Your task to perform on an android device: toggle notification dots Image 0: 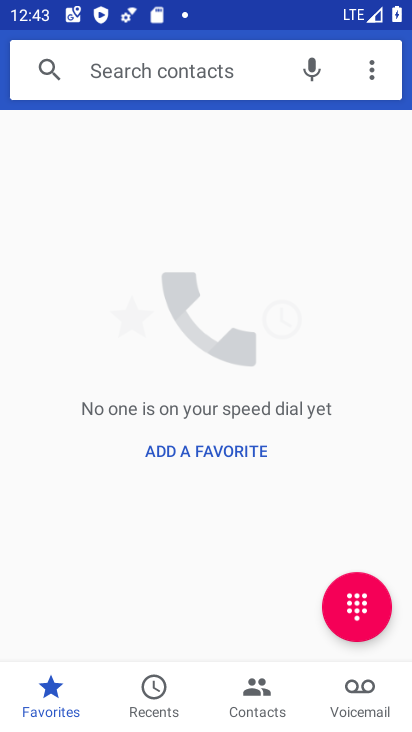
Step 0: press home button
Your task to perform on an android device: toggle notification dots Image 1: 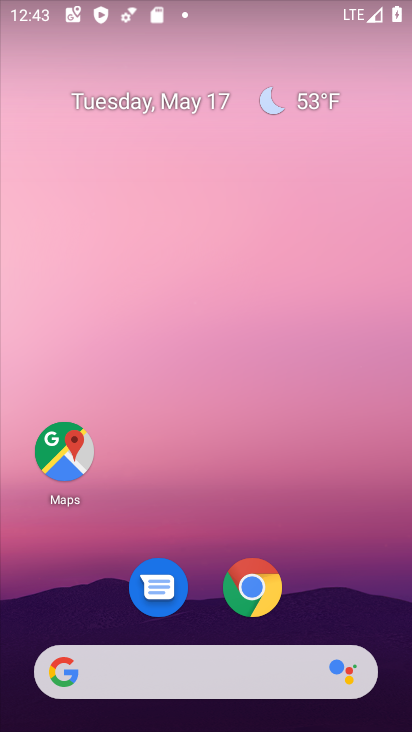
Step 1: drag from (232, 636) to (304, 7)
Your task to perform on an android device: toggle notification dots Image 2: 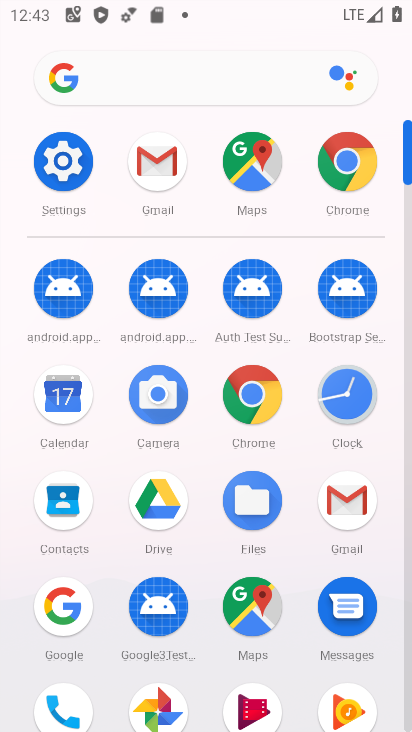
Step 2: click (53, 160)
Your task to perform on an android device: toggle notification dots Image 3: 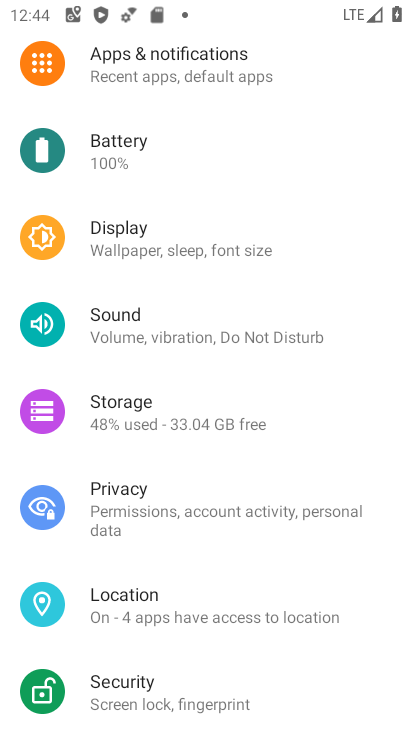
Step 3: click (201, 85)
Your task to perform on an android device: toggle notification dots Image 4: 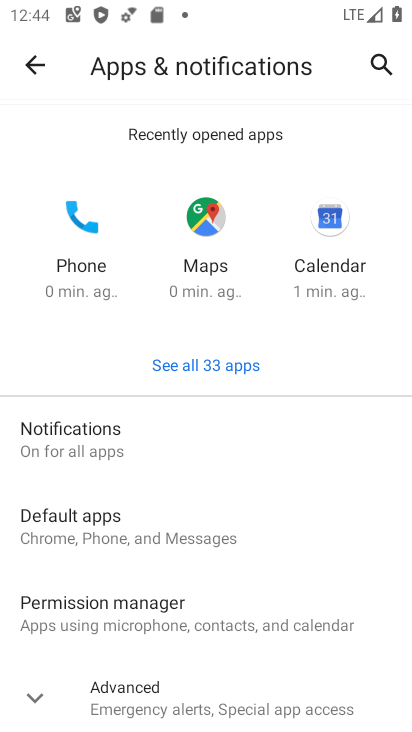
Step 4: click (104, 432)
Your task to perform on an android device: toggle notification dots Image 5: 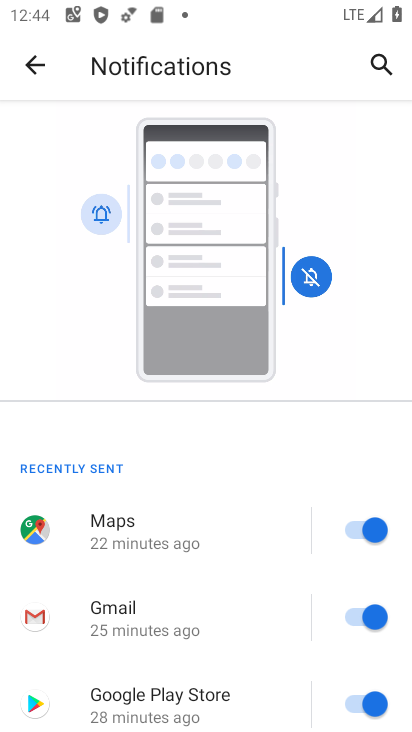
Step 5: drag from (177, 531) to (155, 2)
Your task to perform on an android device: toggle notification dots Image 6: 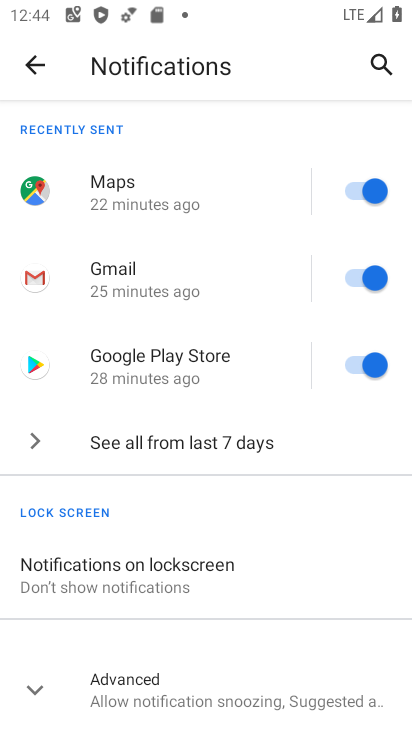
Step 6: click (196, 668)
Your task to perform on an android device: toggle notification dots Image 7: 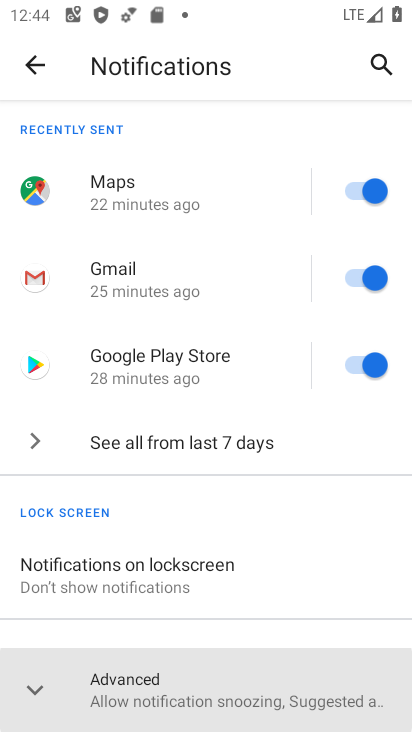
Step 7: drag from (198, 669) to (129, 137)
Your task to perform on an android device: toggle notification dots Image 8: 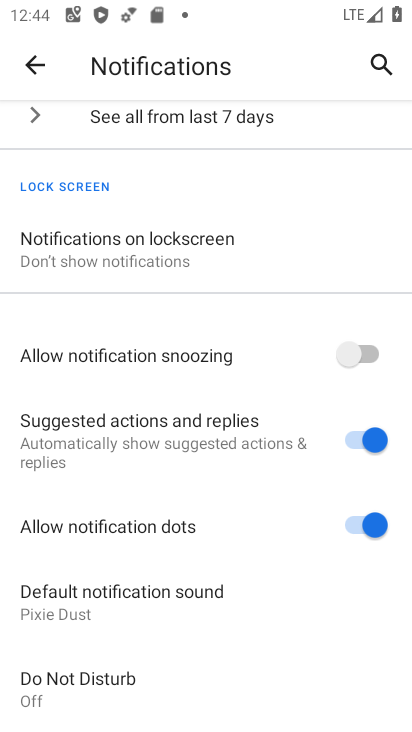
Step 8: click (367, 528)
Your task to perform on an android device: toggle notification dots Image 9: 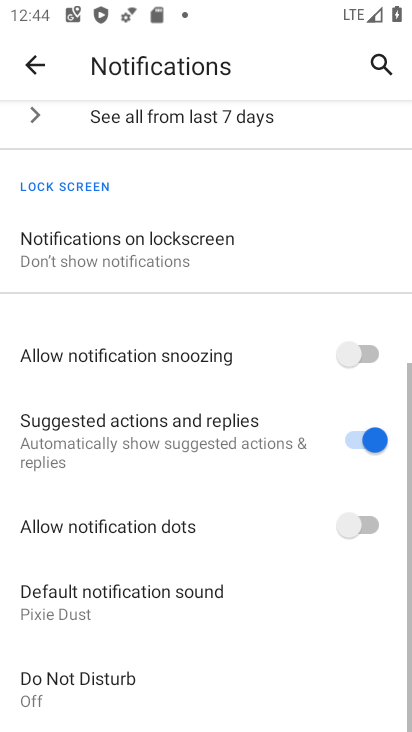
Step 9: task complete